Your task to perform on an android device: manage bookmarks in the chrome app Image 0: 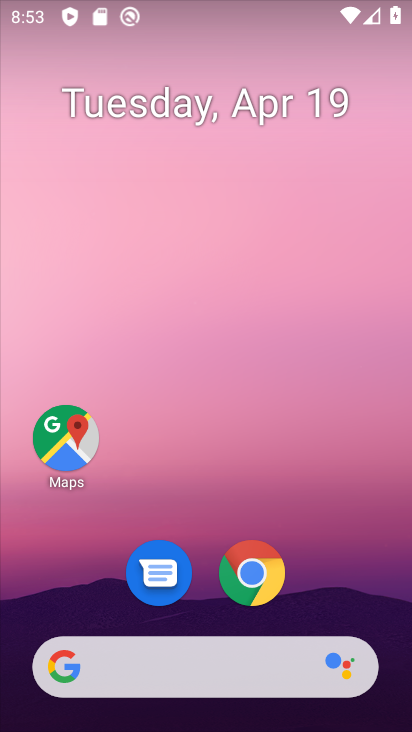
Step 0: click (261, 578)
Your task to perform on an android device: manage bookmarks in the chrome app Image 1: 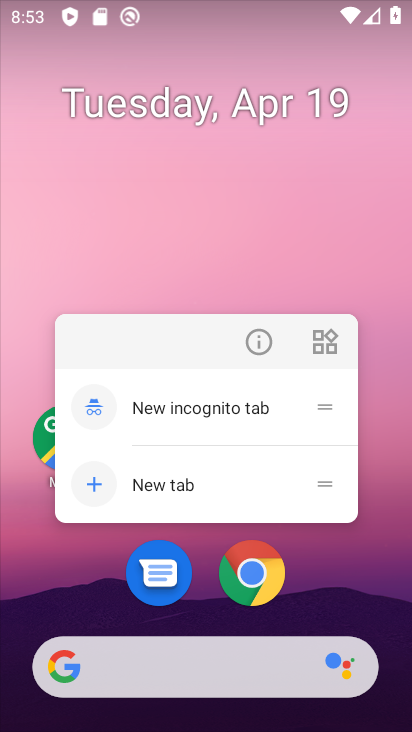
Step 1: click (261, 578)
Your task to perform on an android device: manage bookmarks in the chrome app Image 2: 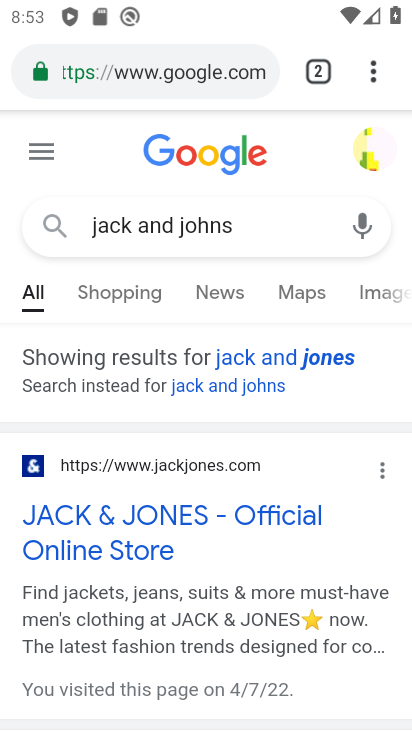
Step 2: click (365, 71)
Your task to perform on an android device: manage bookmarks in the chrome app Image 3: 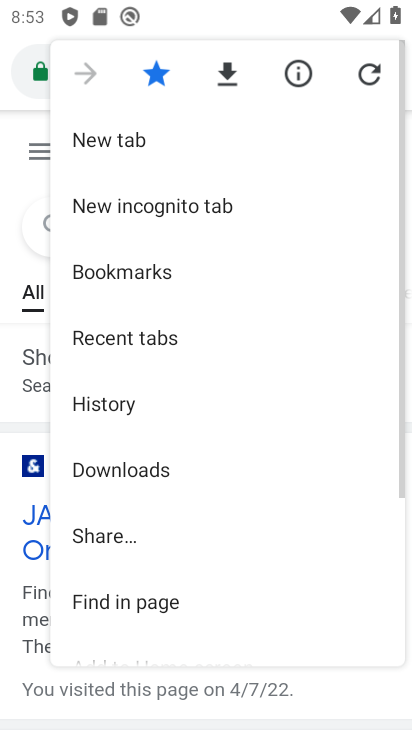
Step 3: click (250, 267)
Your task to perform on an android device: manage bookmarks in the chrome app Image 4: 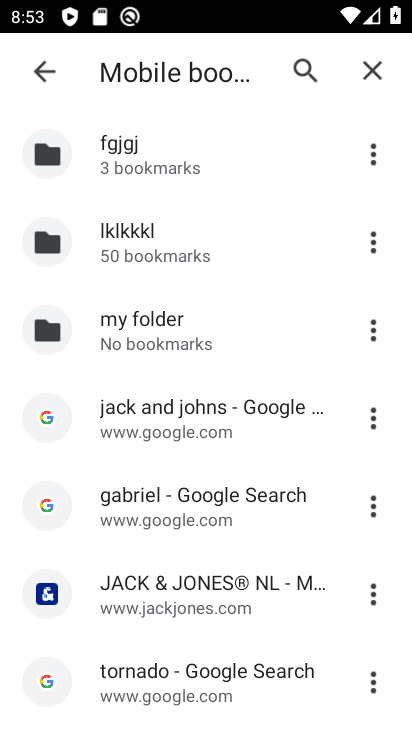
Step 4: click (373, 417)
Your task to perform on an android device: manage bookmarks in the chrome app Image 5: 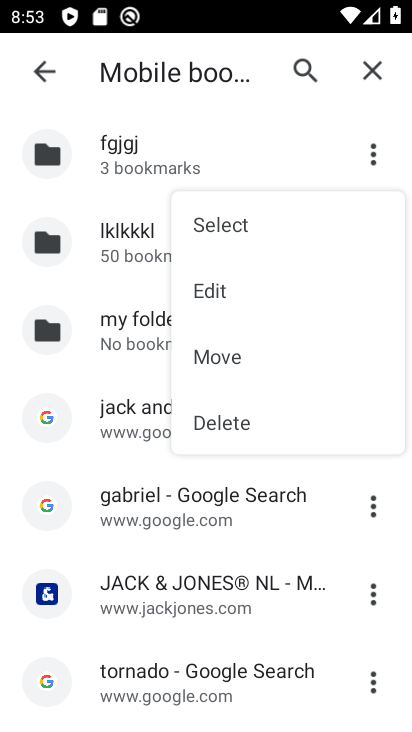
Step 5: click (233, 416)
Your task to perform on an android device: manage bookmarks in the chrome app Image 6: 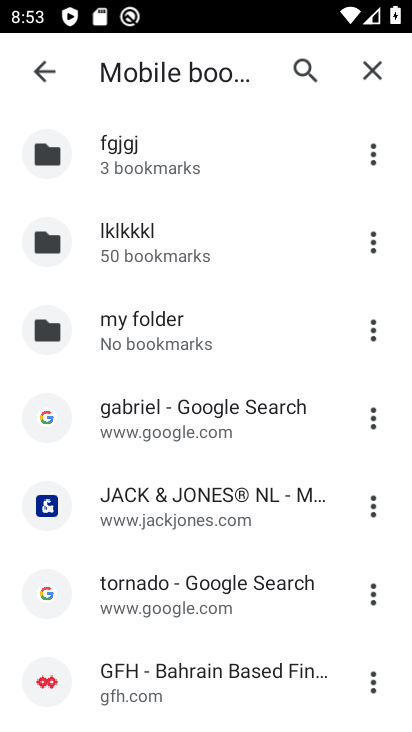
Step 6: task complete